Your task to perform on an android device: see sites visited before in the chrome app Image 0: 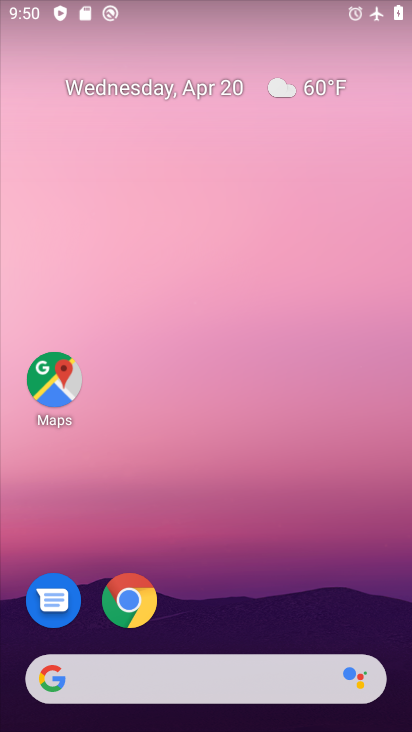
Step 0: drag from (182, 631) to (303, 622)
Your task to perform on an android device: see sites visited before in the chrome app Image 1: 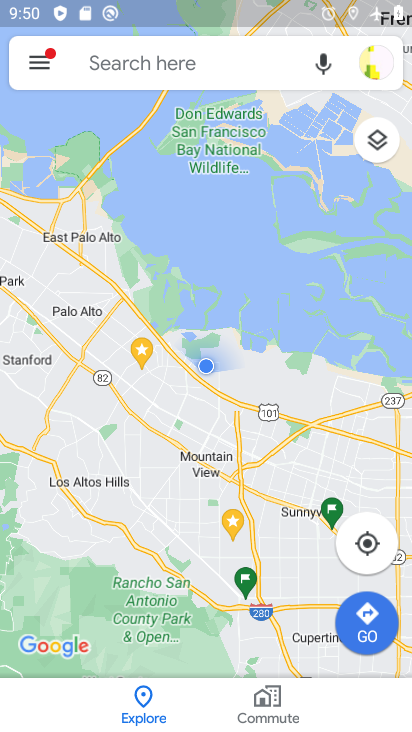
Step 1: press home button
Your task to perform on an android device: see sites visited before in the chrome app Image 2: 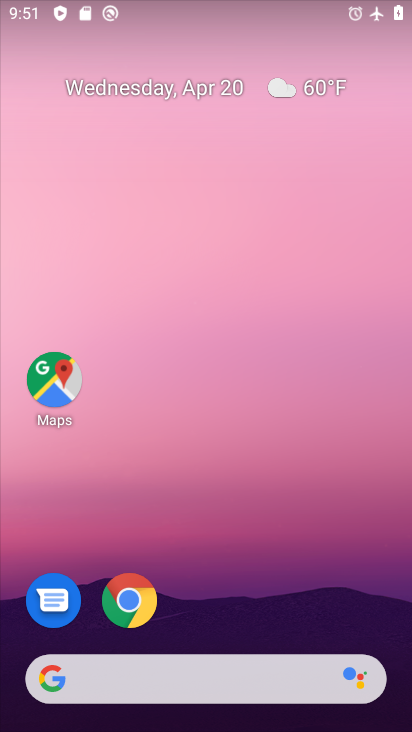
Step 2: click (123, 613)
Your task to perform on an android device: see sites visited before in the chrome app Image 3: 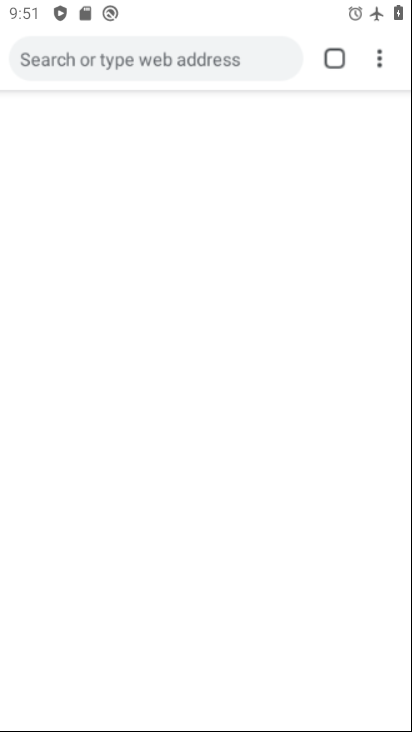
Step 3: task complete